Your task to perform on an android device: Go to Amazon Image 0: 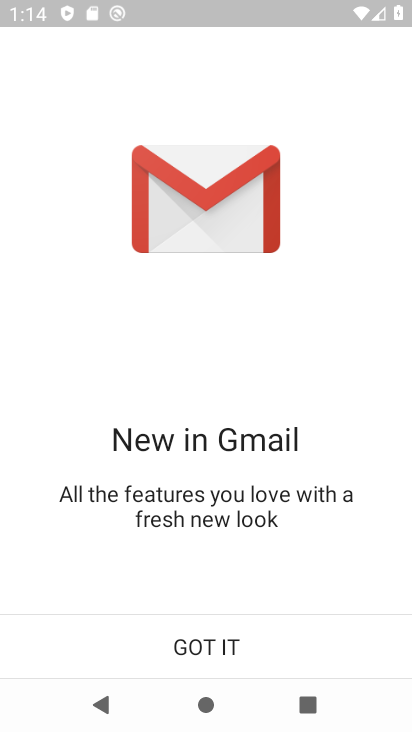
Step 0: press home button
Your task to perform on an android device: Go to Amazon Image 1: 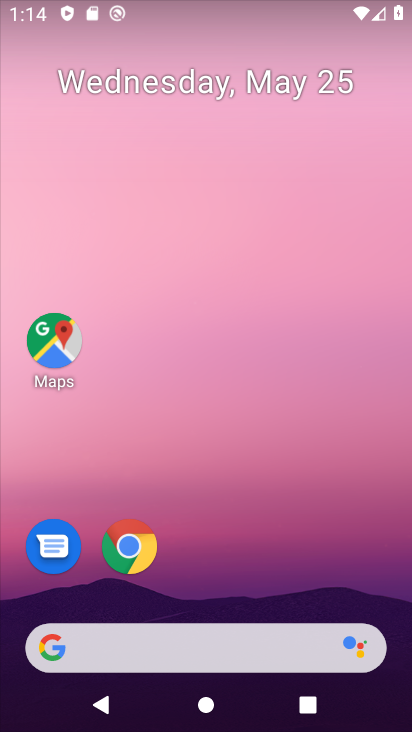
Step 1: drag from (384, 579) to (345, 221)
Your task to perform on an android device: Go to Amazon Image 2: 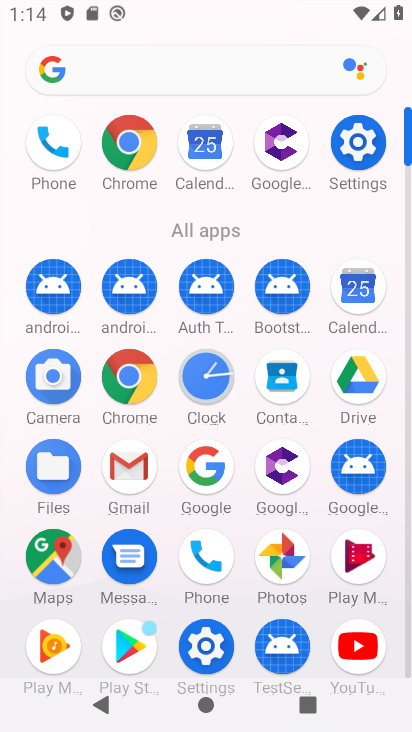
Step 2: click (142, 394)
Your task to perform on an android device: Go to Amazon Image 3: 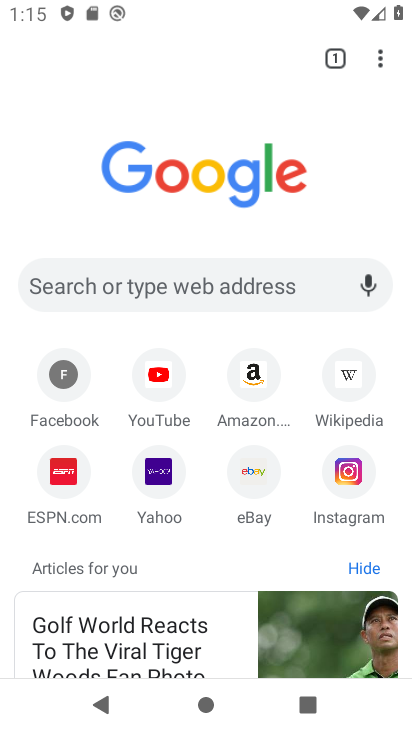
Step 3: click (255, 389)
Your task to perform on an android device: Go to Amazon Image 4: 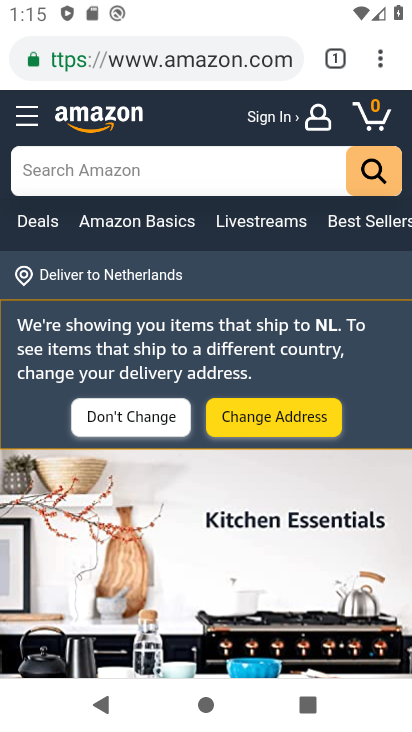
Step 4: task complete